Your task to perform on an android device: turn on translation in the chrome app Image 0: 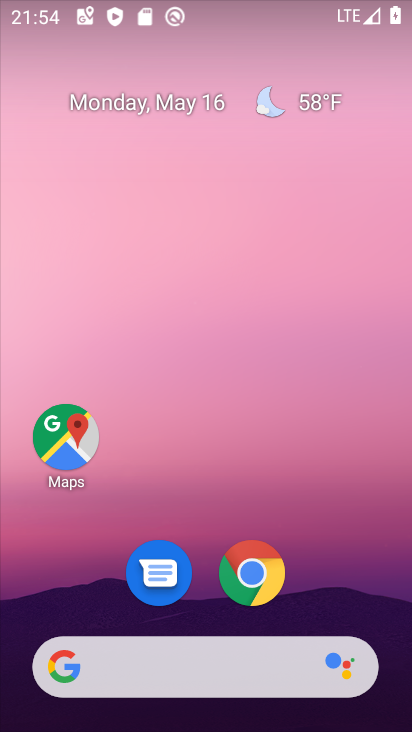
Step 0: click (255, 573)
Your task to perform on an android device: turn on translation in the chrome app Image 1: 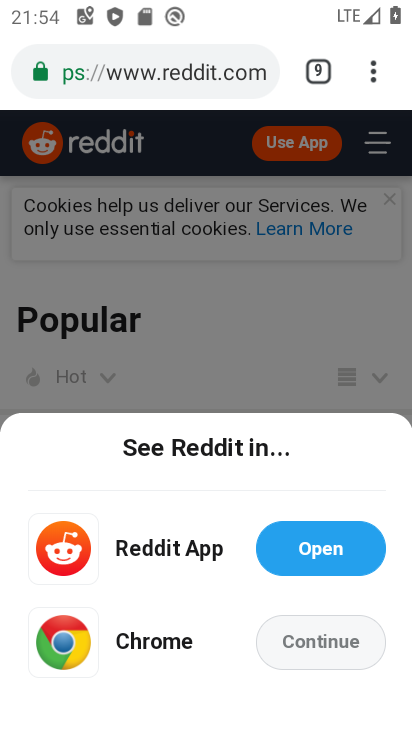
Step 1: click (372, 77)
Your task to perform on an android device: turn on translation in the chrome app Image 2: 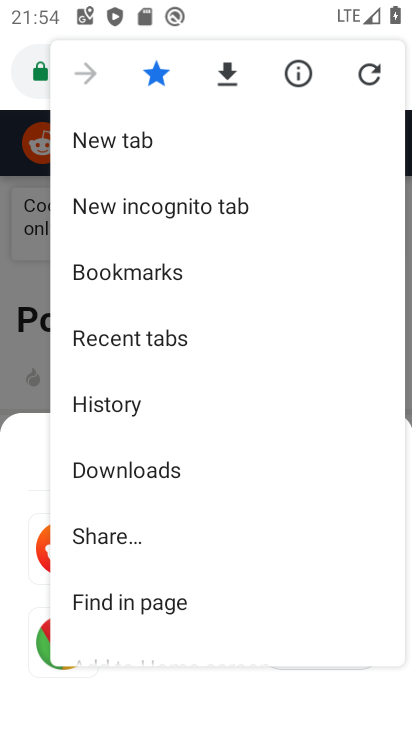
Step 2: drag from (104, 628) to (89, 217)
Your task to perform on an android device: turn on translation in the chrome app Image 3: 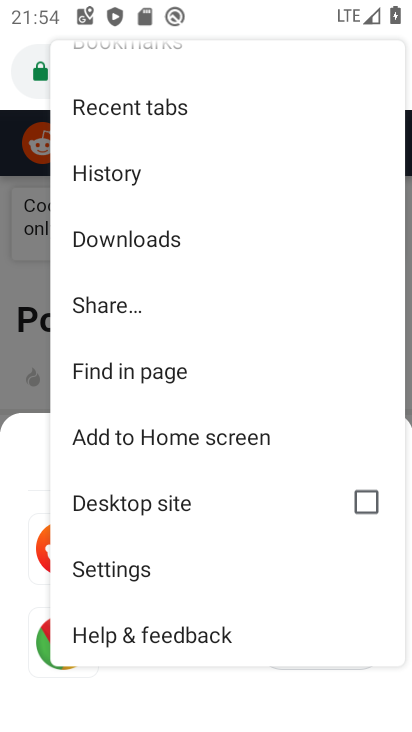
Step 3: click (125, 572)
Your task to perform on an android device: turn on translation in the chrome app Image 4: 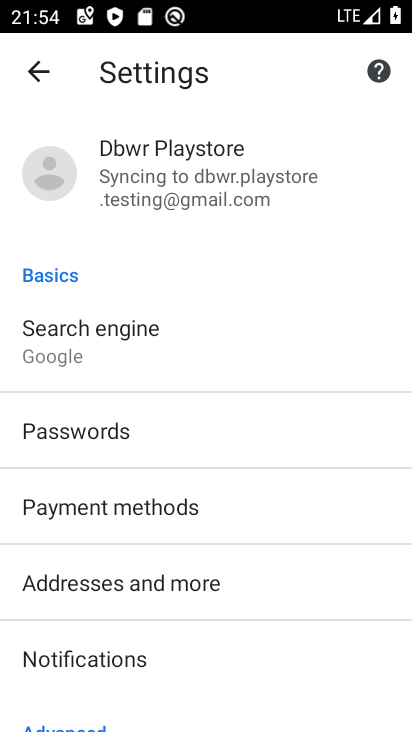
Step 4: drag from (152, 702) to (150, 266)
Your task to perform on an android device: turn on translation in the chrome app Image 5: 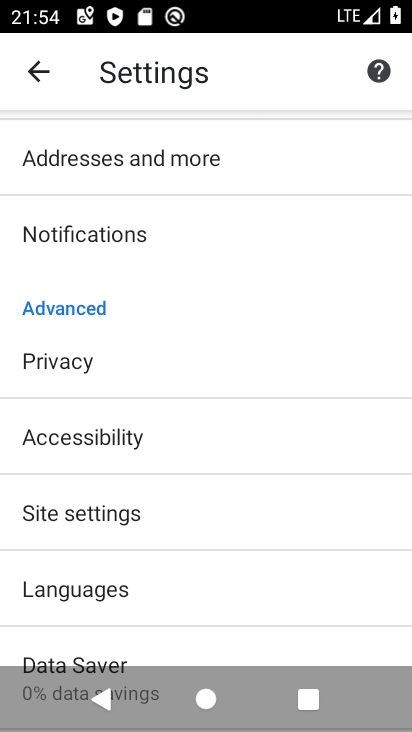
Step 5: drag from (136, 612) to (133, 193)
Your task to perform on an android device: turn on translation in the chrome app Image 6: 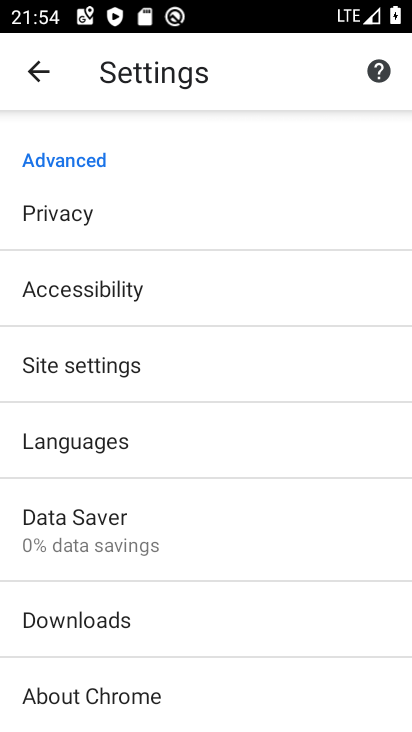
Step 6: click (73, 442)
Your task to perform on an android device: turn on translation in the chrome app Image 7: 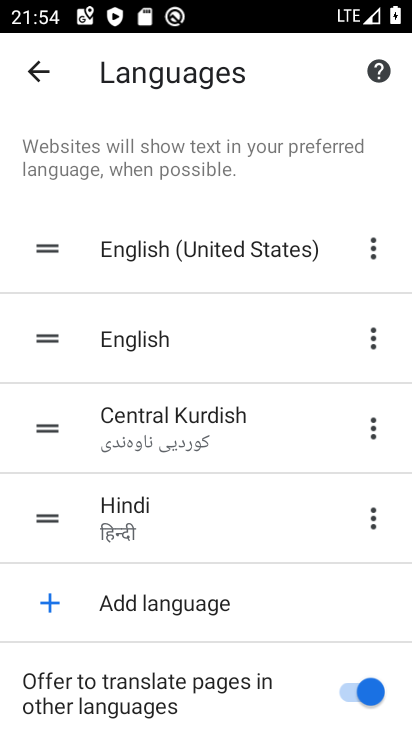
Step 7: task complete